Your task to perform on an android device: Show the shopping cart on bestbuy.com. Search for jbl charge 4 on bestbuy.com, select the first entry, add it to the cart, then select checkout. Image 0: 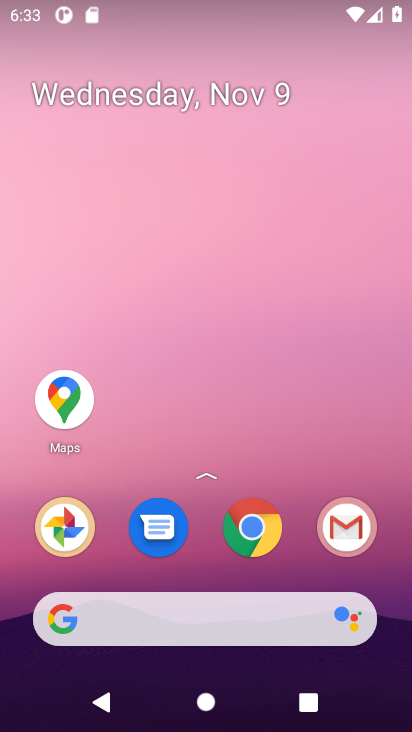
Step 0: press home button
Your task to perform on an android device: Show the shopping cart on bestbuy.com. Search for jbl charge 4 on bestbuy.com, select the first entry, add it to the cart, then select checkout. Image 1: 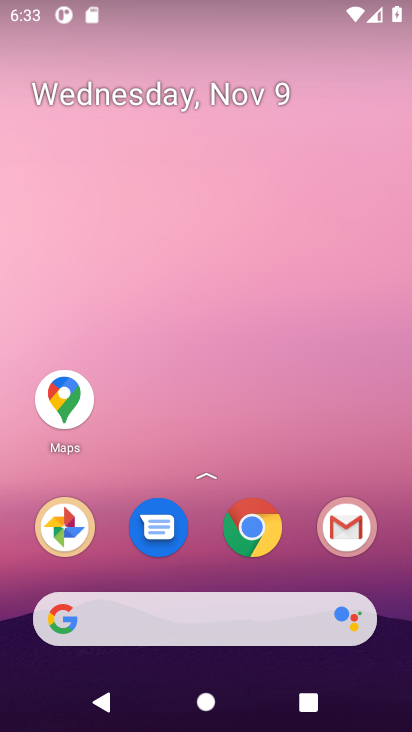
Step 1: drag from (207, 496) to (202, 6)
Your task to perform on an android device: Show the shopping cart on bestbuy.com. Search for jbl charge 4 on bestbuy.com, select the first entry, add it to the cart, then select checkout. Image 2: 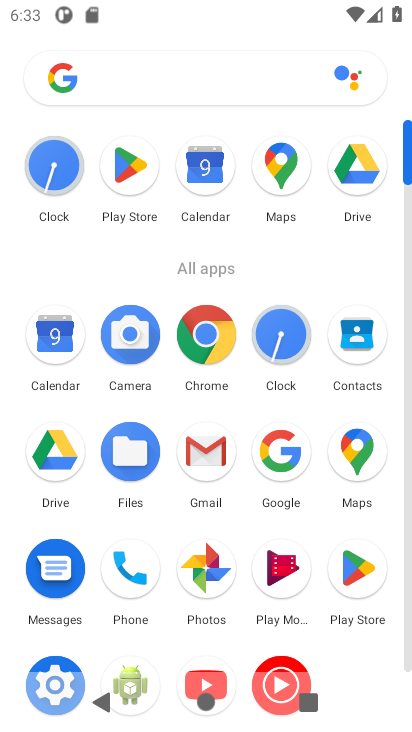
Step 2: click (206, 322)
Your task to perform on an android device: Show the shopping cart on bestbuy.com. Search for jbl charge 4 on bestbuy.com, select the first entry, add it to the cart, then select checkout. Image 3: 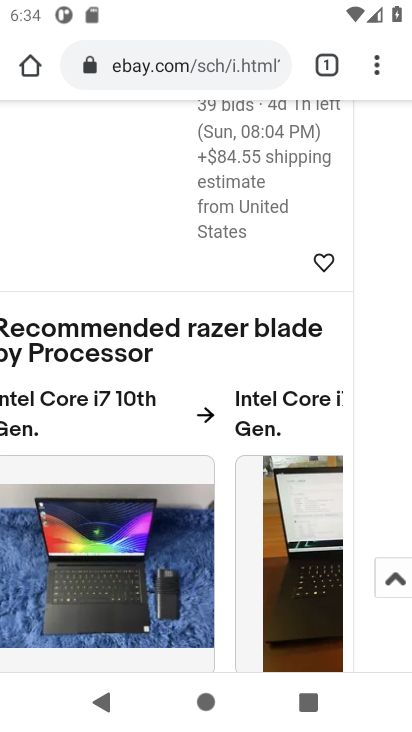
Step 3: click (145, 65)
Your task to perform on an android device: Show the shopping cart on bestbuy.com. Search for jbl charge 4 on bestbuy.com, select the first entry, add it to the cart, then select checkout. Image 4: 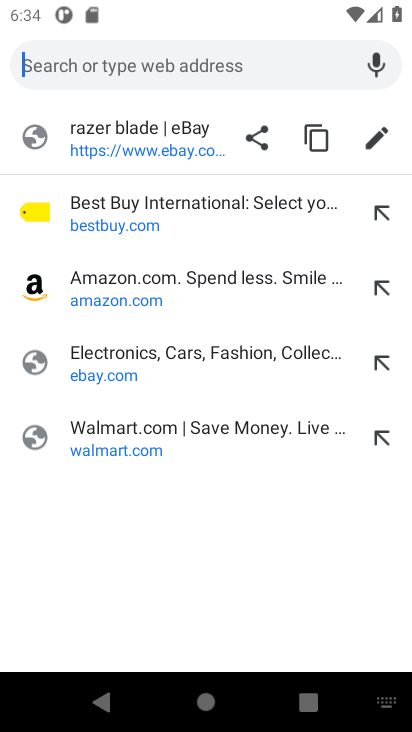
Step 4: click (165, 208)
Your task to perform on an android device: Show the shopping cart on bestbuy.com. Search for jbl charge 4 on bestbuy.com, select the first entry, add it to the cart, then select checkout. Image 5: 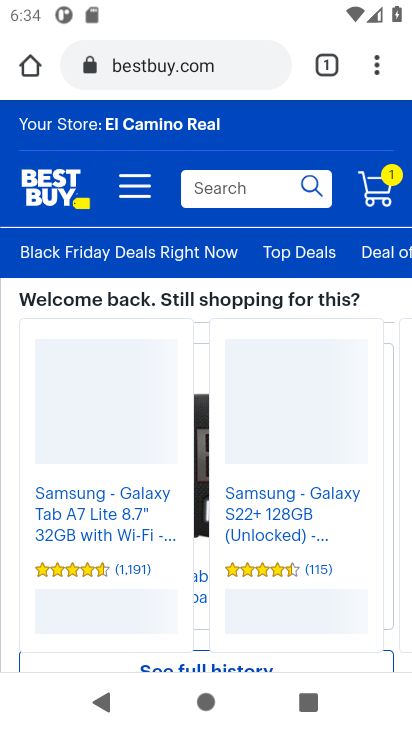
Step 5: click (236, 181)
Your task to perform on an android device: Show the shopping cart on bestbuy.com. Search for jbl charge 4 on bestbuy.com, select the first entry, add it to the cart, then select checkout. Image 6: 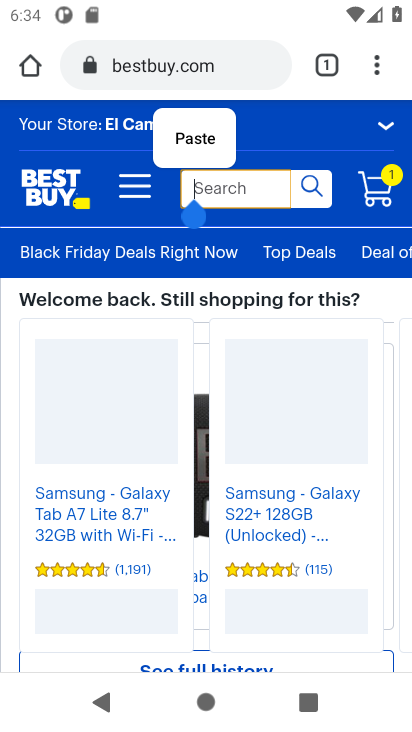
Step 6: type "jbl charge 4"
Your task to perform on an android device: Show the shopping cart on bestbuy.com. Search for jbl charge 4 on bestbuy.com, select the first entry, add it to the cart, then select checkout. Image 7: 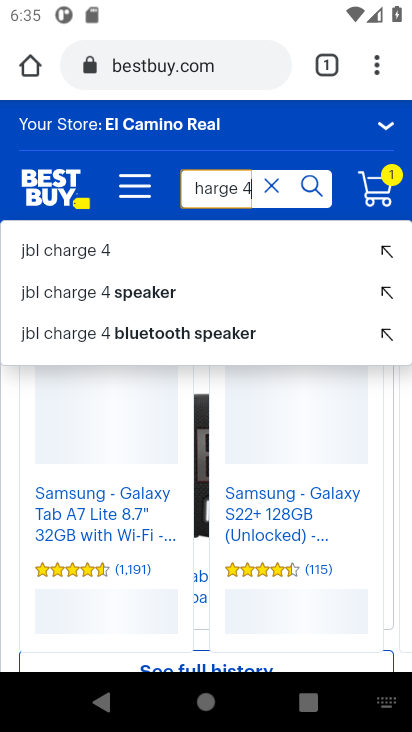
Step 7: click (105, 244)
Your task to perform on an android device: Show the shopping cart on bestbuy.com. Search for jbl charge 4 on bestbuy.com, select the first entry, add it to the cart, then select checkout. Image 8: 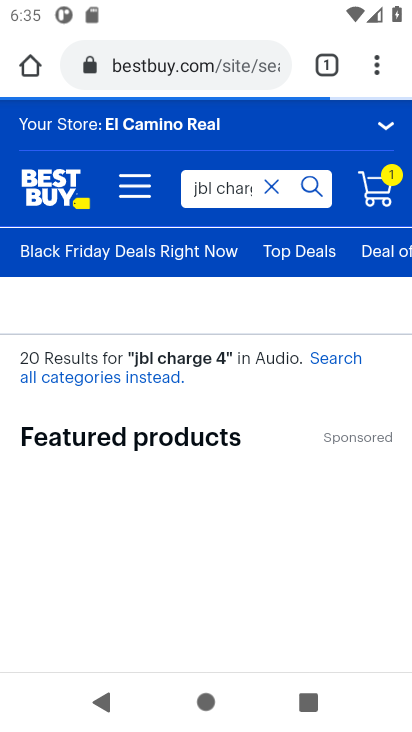
Step 8: drag from (213, 474) to (223, 89)
Your task to perform on an android device: Show the shopping cart on bestbuy.com. Search for jbl charge 4 on bestbuy.com, select the first entry, add it to the cart, then select checkout. Image 9: 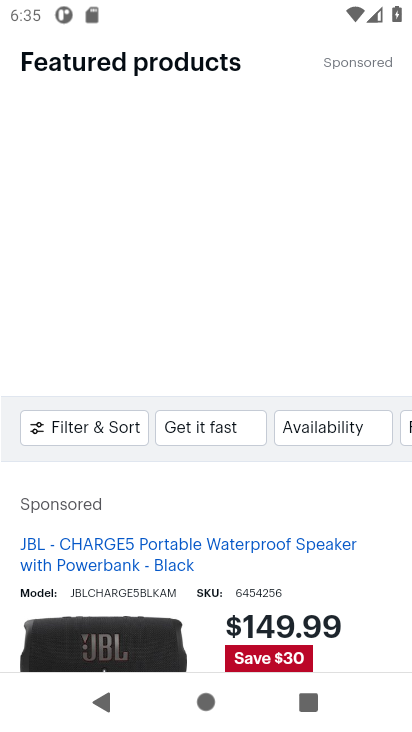
Step 9: click (132, 548)
Your task to perform on an android device: Show the shopping cart on bestbuy.com. Search for jbl charge 4 on bestbuy.com, select the first entry, add it to the cart, then select checkout. Image 10: 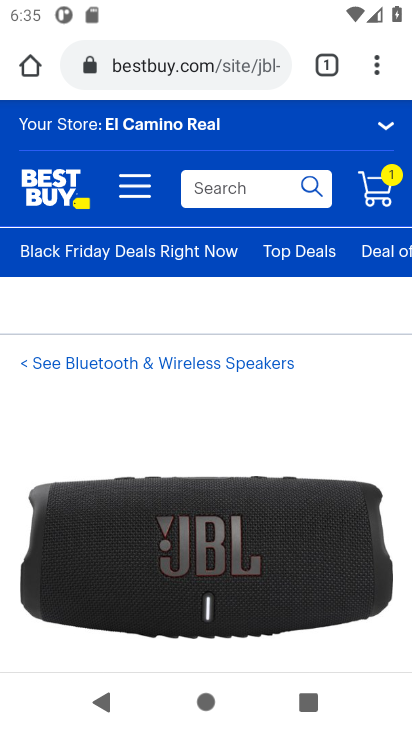
Step 10: drag from (194, 626) to (184, 143)
Your task to perform on an android device: Show the shopping cart on bestbuy.com. Search for jbl charge 4 on bestbuy.com, select the first entry, add it to the cart, then select checkout. Image 11: 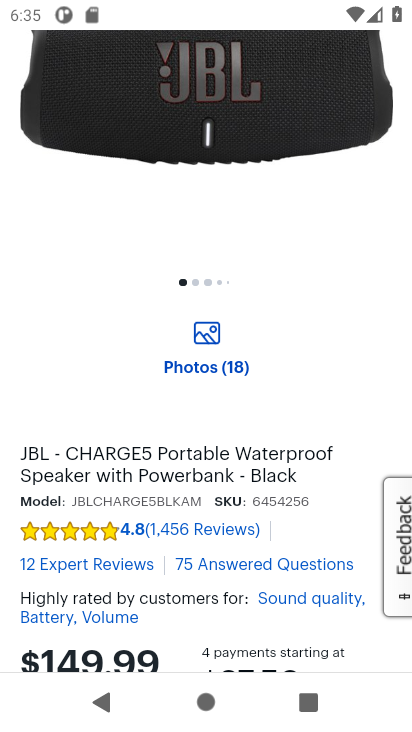
Step 11: drag from (184, 633) to (176, 230)
Your task to perform on an android device: Show the shopping cart on bestbuy.com. Search for jbl charge 4 on bestbuy.com, select the first entry, add it to the cart, then select checkout. Image 12: 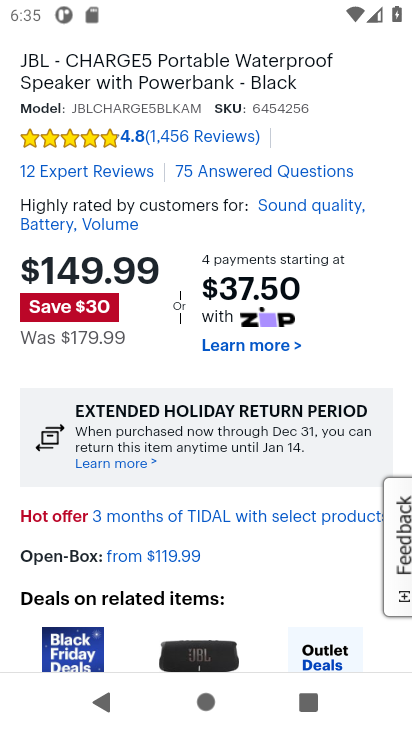
Step 12: drag from (263, 563) to (213, 100)
Your task to perform on an android device: Show the shopping cart on bestbuy.com. Search for jbl charge 4 on bestbuy.com, select the first entry, add it to the cart, then select checkout. Image 13: 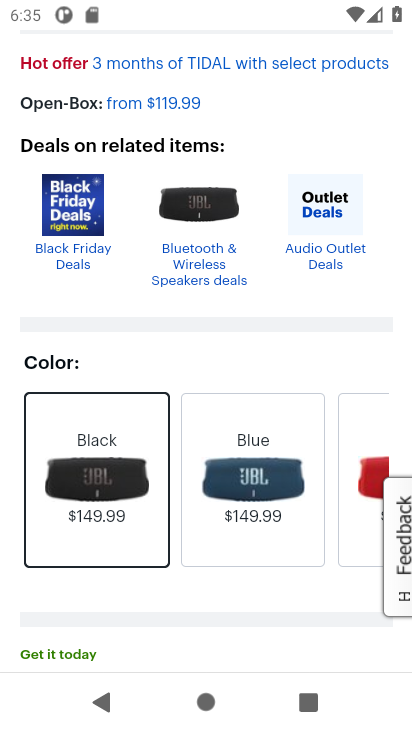
Step 13: drag from (232, 634) to (208, 220)
Your task to perform on an android device: Show the shopping cart on bestbuy.com. Search for jbl charge 4 on bestbuy.com, select the first entry, add it to the cart, then select checkout. Image 14: 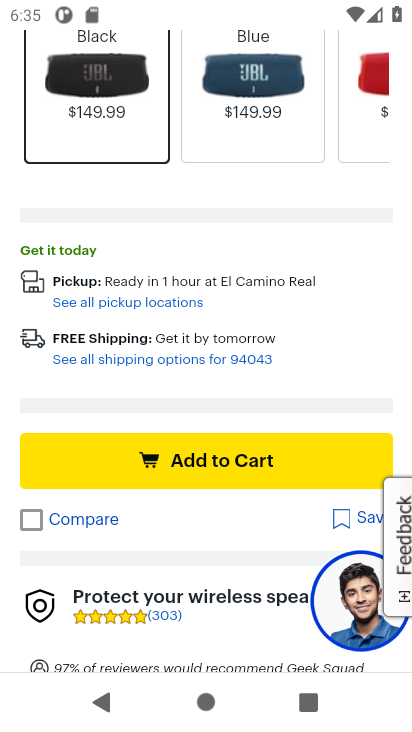
Step 14: click (212, 462)
Your task to perform on an android device: Show the shopping cart on bestbuy.com. Search for jbl charge 4 on bestbuy.com, select the first entry, add it to the cart, then select checkout. Image 15: 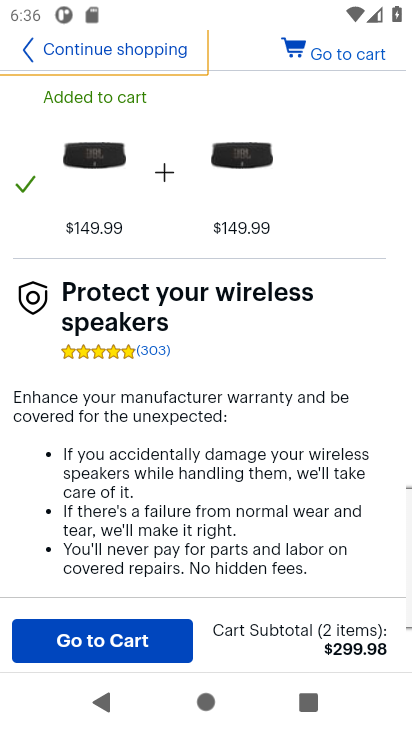
Step 15: click (132, 641)
Your task to perform on an android device: Show the shopping cart on bestbuy.com. Search for jbl charge 4 on bestbuy.com, select the first entry, add it to the cart, then select checkout. Image 16: 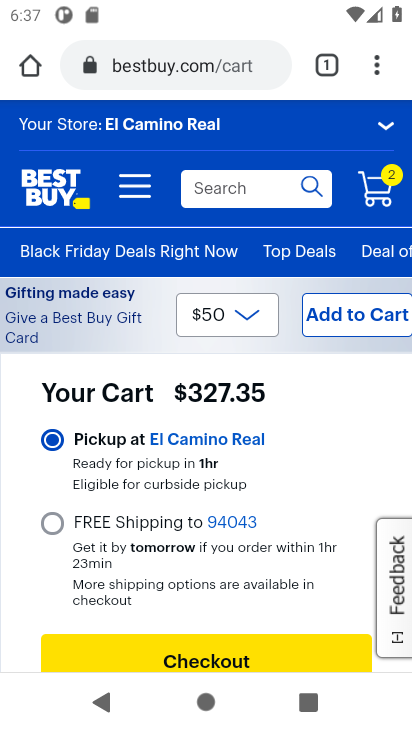
Step 16: click (219, 650)
Your task to perform on an android device: Show the shopping cart on bestbuy.com. Search for jbl charge 4 on bestbuy.com, select the first entry, add it to the cart, then select checkout. Image 17: 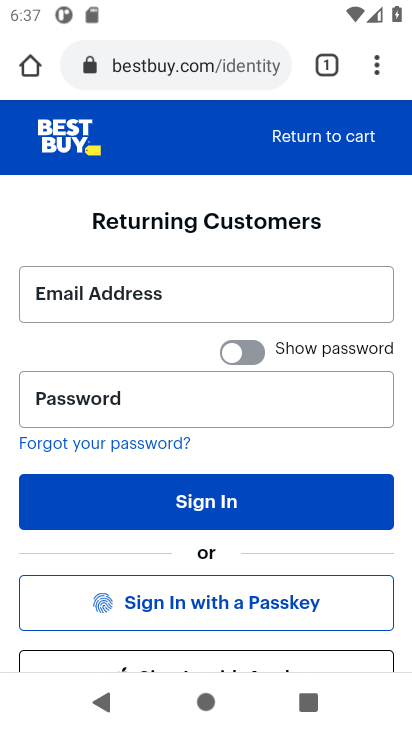
Step 17: task complete